Your task to perform on an android device: set the stopwatch Image 0: 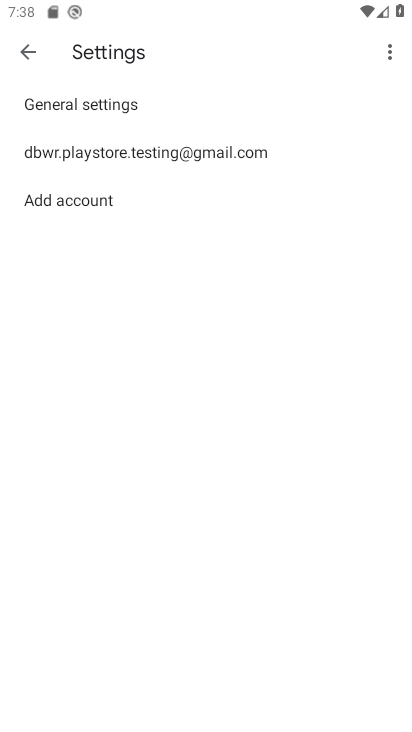
Step 0: press home button
Your task to perform on an android device: set the stopwatch Image 1: 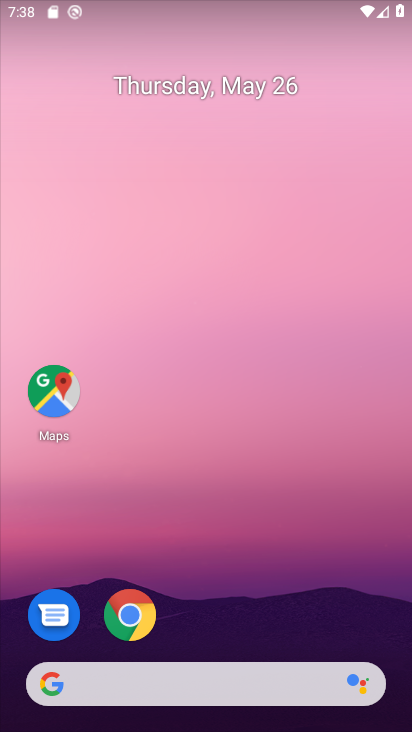
Step 1: drag from (235, 575) to (260, 277)
Your task to perform on an android device: set the stopwatch Image 2: 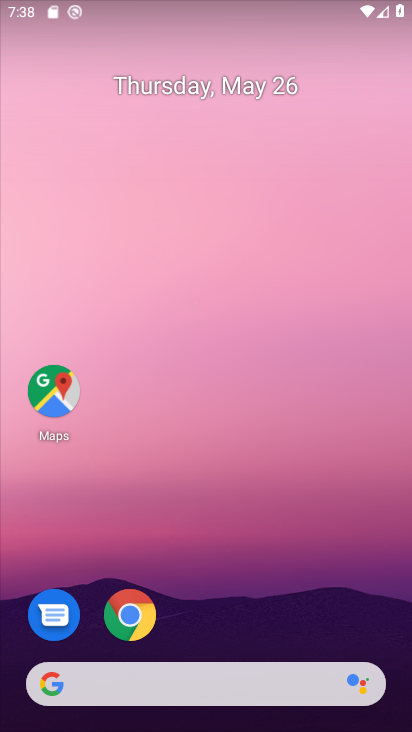
Step 2: drag from (284, 667) to (304, 274)
Your task to perform on an android device: set the stopwatch Image 3: 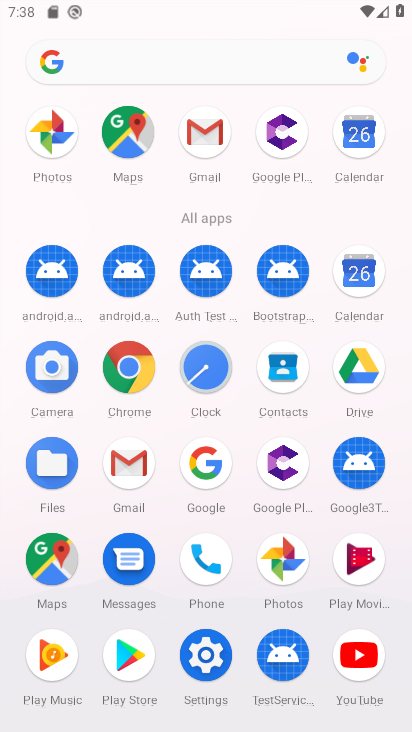
Step 3: click (195, 370)
Your task to perform on an android device: set the stopwatch Image 4: 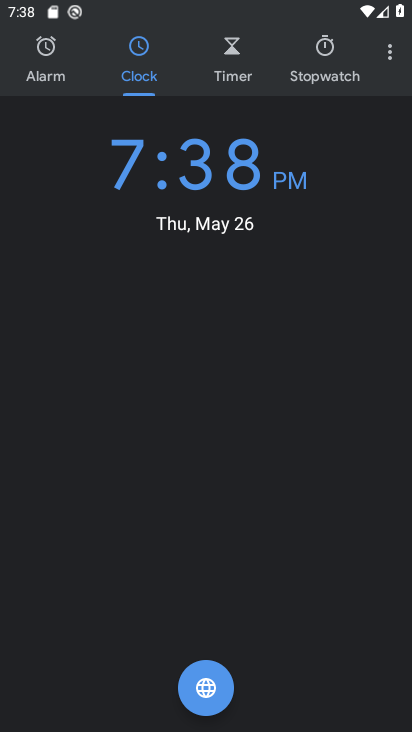
Step 4: click (324, 59)
Your task to perform on an android device: set the stopwatch Image 5: 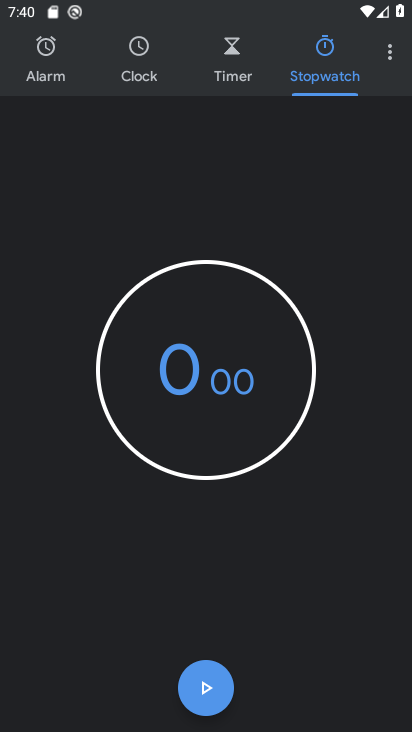
Step 5: task complete